Your task to perform on an android device: turn on location history Image 0: 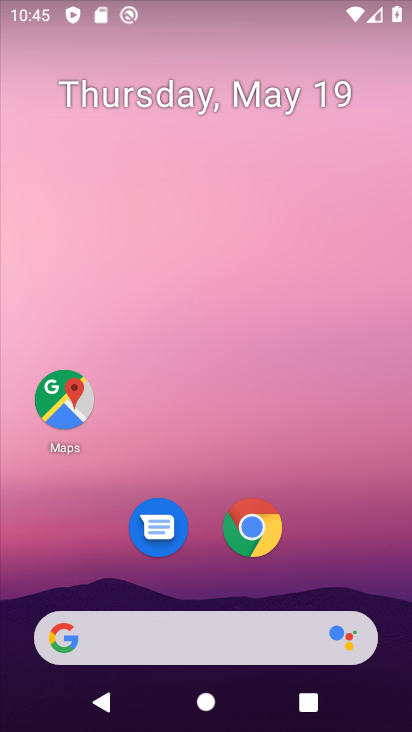
Step 0: drag from (220, 570) to (250, 163)
Your task to perform on an android device: turn on location history Image 1: 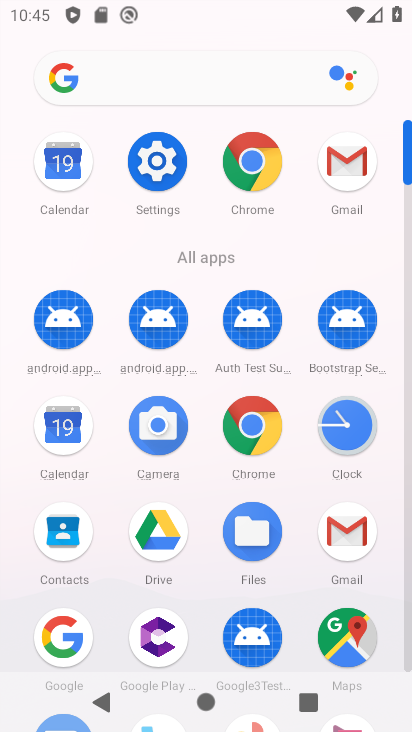
Step 1: click (170, 187)
Your task to perform on an android device: turn on location history Image 2: 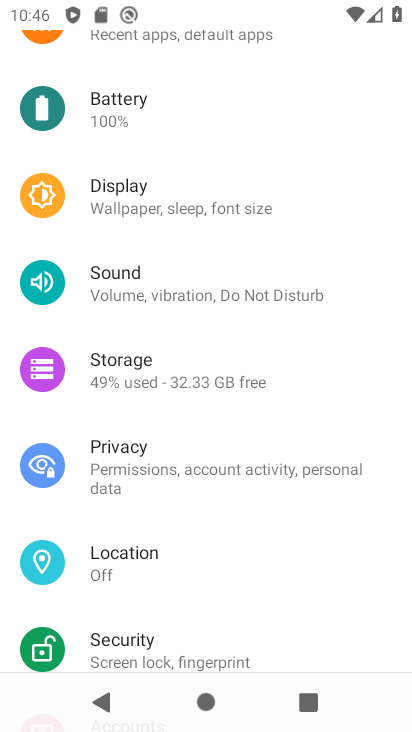
Step 2: click (152, 576)
Your task to perform on an android device: turn on location history Image 3: 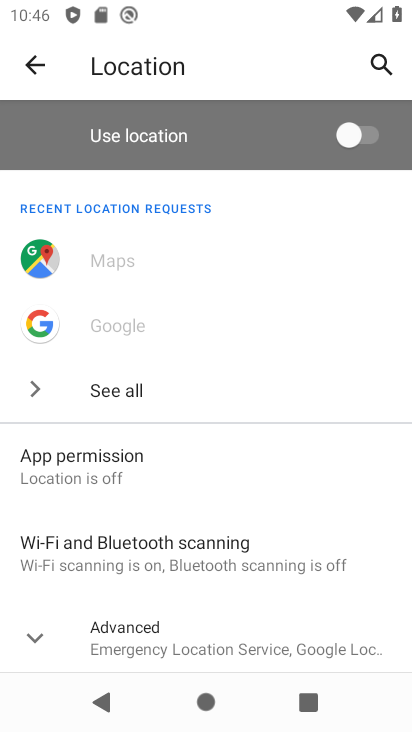
Step 3: drag from (152, 558) to (191, 384)
Your task to perform on an android device: turn on location history Image 4: 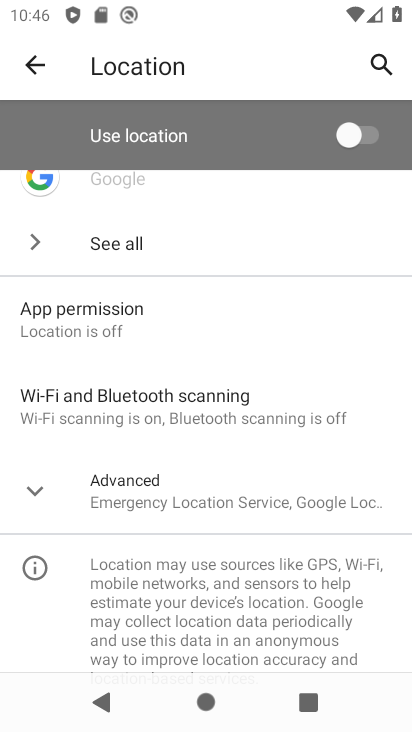
Step 4: click (114, 502)
Your task to perform on an android device: turn on location history Image 5: 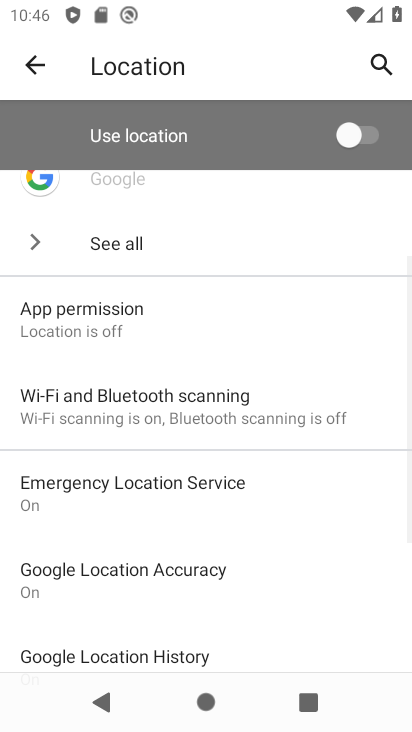
Step 5: drag from (145, 546) to (173, 376)
Your task to perform on an android device: turn on location history Image 6: 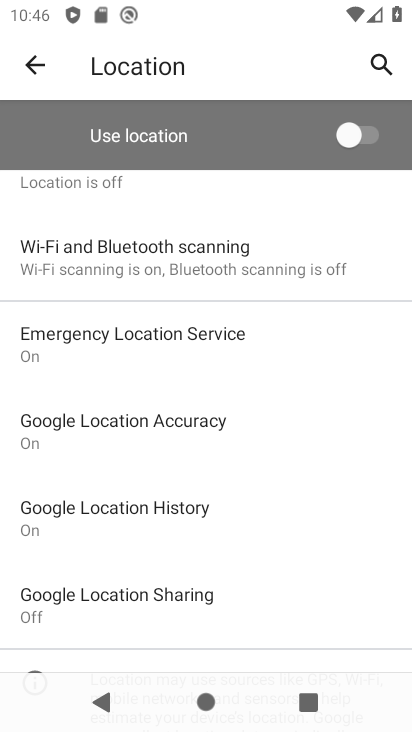
Step 6: click (169, 518)
Your task to perform on an android device: turn on location history Image 7: 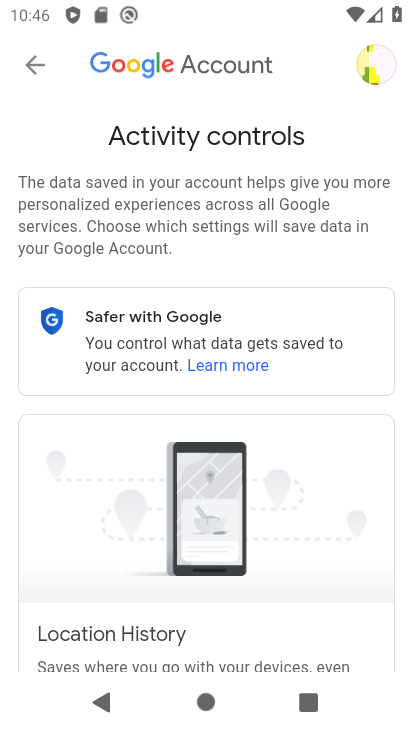
Step 7: drag from (148, 521) to (172, 231)
Your task to perform on an android device: turn on location history Image 8: 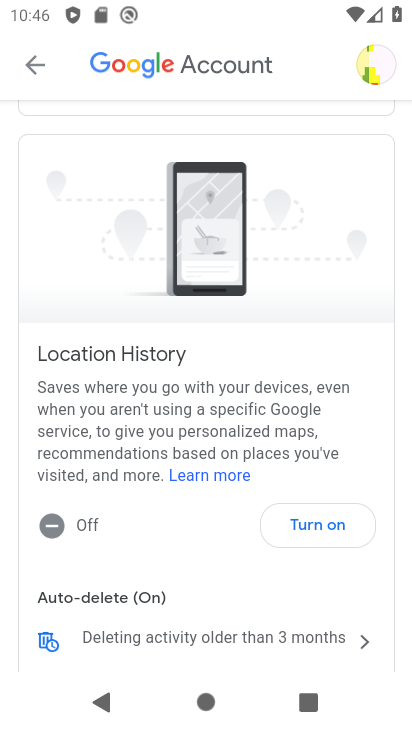
Step 8: click (295, 524)
Your task to perform on an android device: turn on location history Image 9: 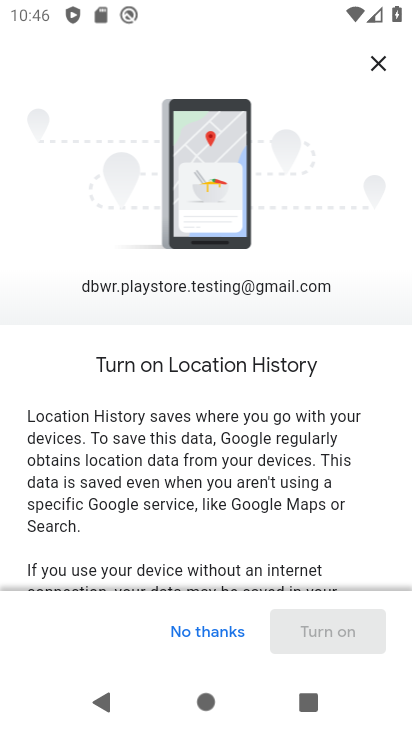
Step 9: drag from (278, 537) to (280, 162)
Your task to perform on an android device: turn on location history Image 10: 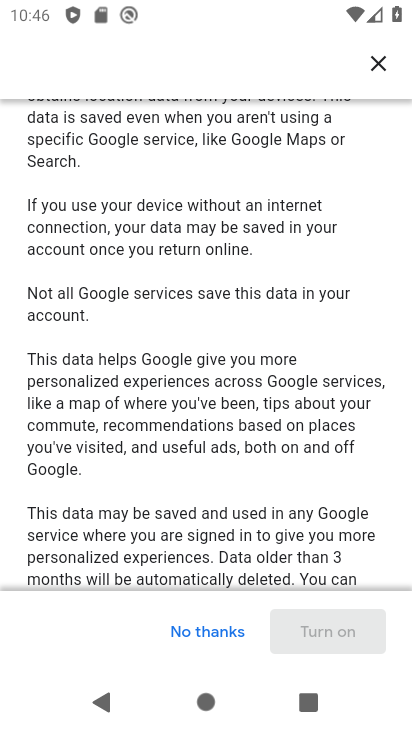
Step 10: drag from (222, 444) to (235, 135)
Your task to perform on an android device: turn on location history Image 11: 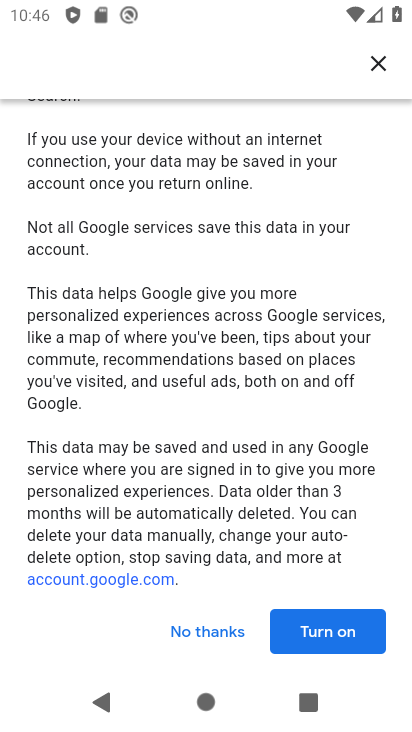
Step 11: click (318, 640)
Your task to perform on an android device: turn on location history Image 12: 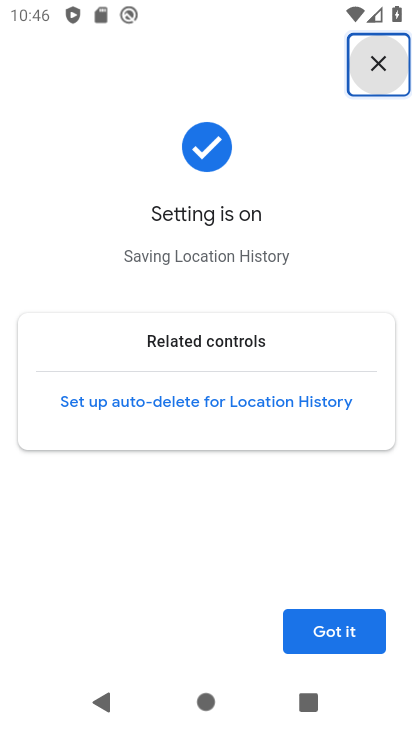
Step 12: click (322, 628)
Your task to perform on an android device: turn on location history Image 13: 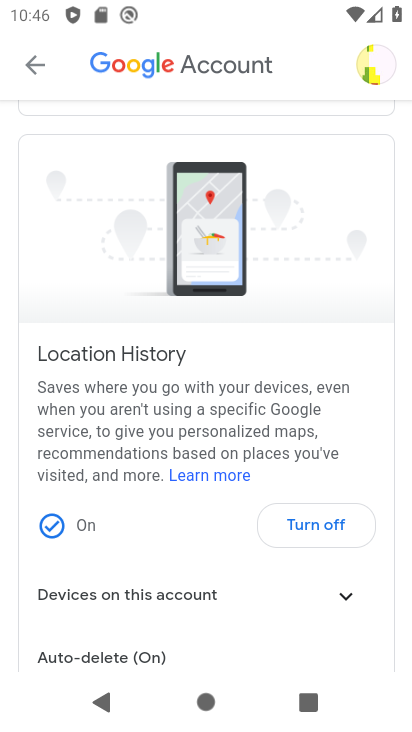
Step 13: task complete